Your task to perform on an android device: change the clock display to show seconds Image 0: 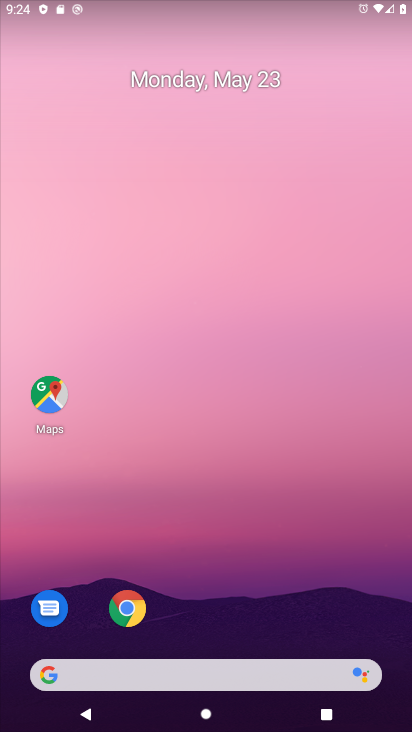
Step 0: drag from (271, 637) to (262, 173)
Your task to perform on an android device: change the clock display to show seconds Image 1: 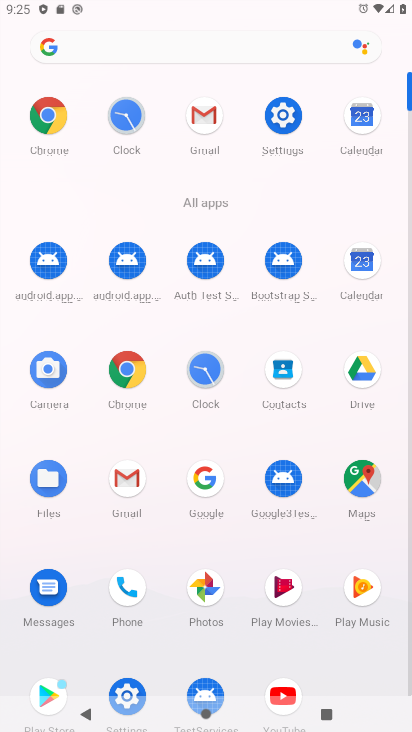
Step 1: click (131, 112)
Your task to perform on an android device: change the clock display to show seconds Image 2: 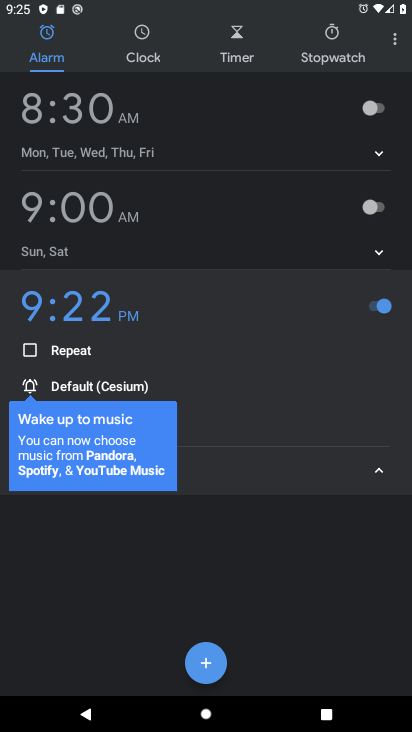
Step 2: click (384, 42)
Your task to perform on an android device: change the clock display to show seconds Image 3: 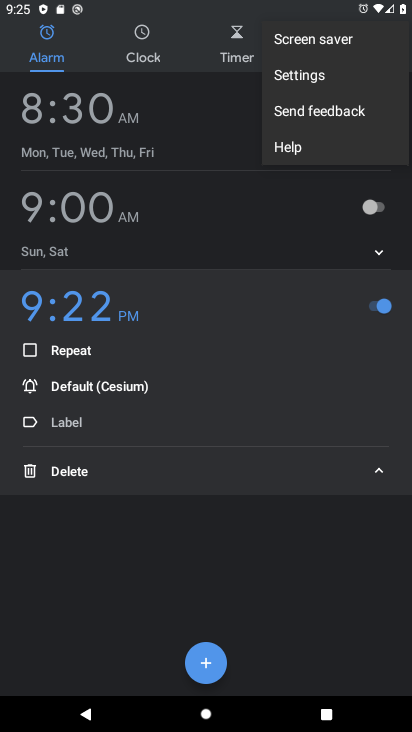
Step 3: click (357, 77)
Your task to perform on an android device: change the clock display to show seconds Image 4: 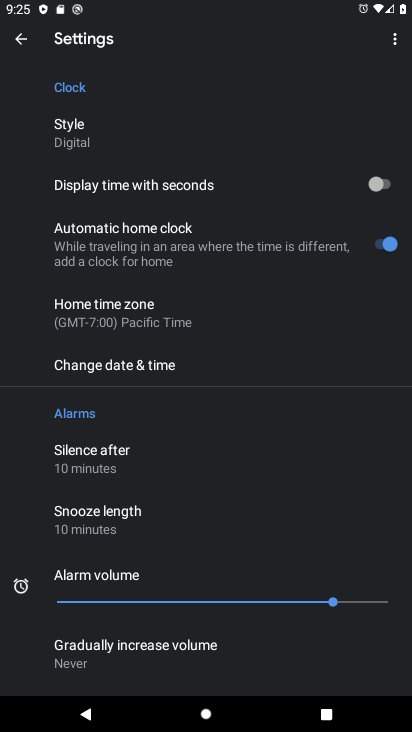
Step 4: click (373, 182)
Your task to perform on an android device: change the clock display to show seconds Image 5: 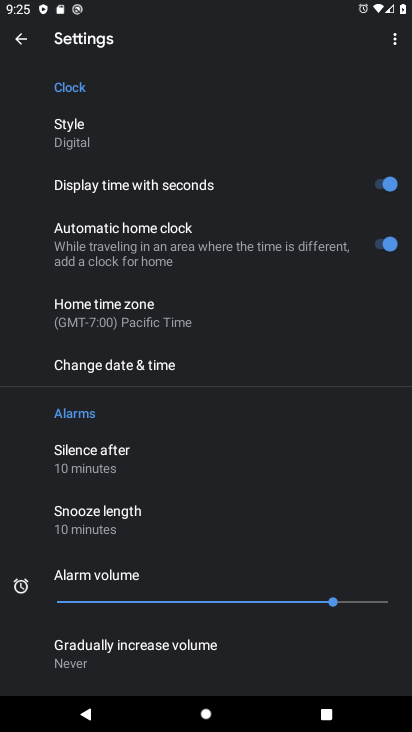
Step 5: task complete